Your task to perform on an android device: Open display settings Image 0: 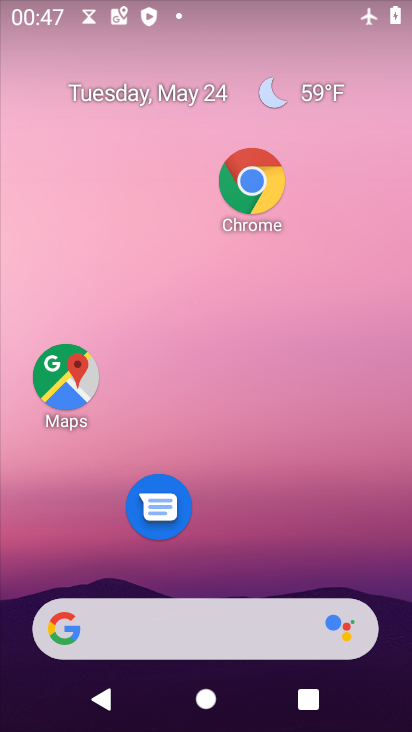
Step 0: drag from (305, 545) to (343, 311)
Your task to perform on an android device: Open display settings Image 1: 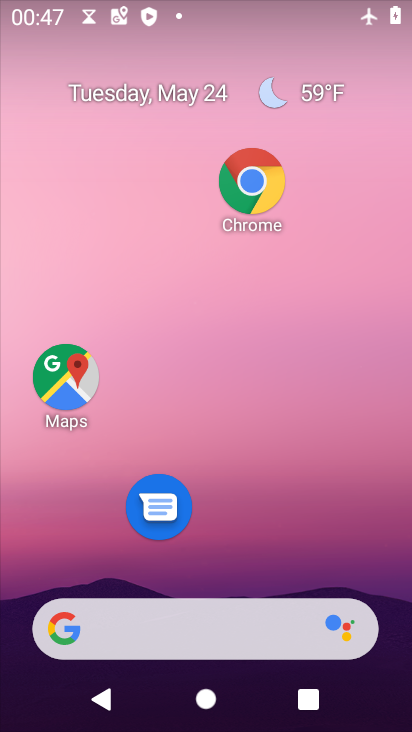
Step 1: drag from (236, 544) to (296, 246)
Your task to perform on an android device: Open display settings Image 2: 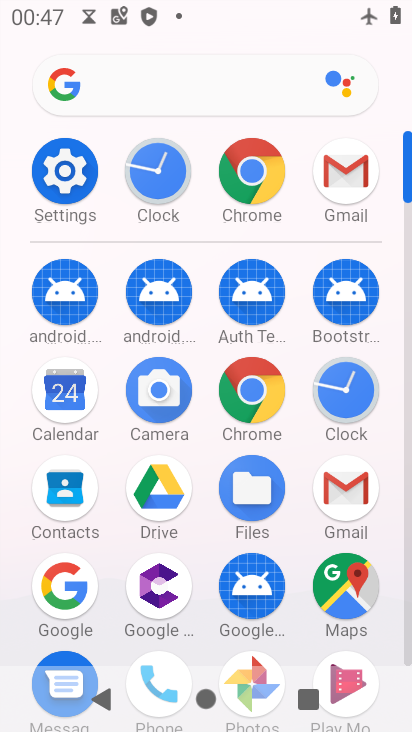
Step 2: click (351, 387)
Your task to perform on an android device: Open display settings Image 3: 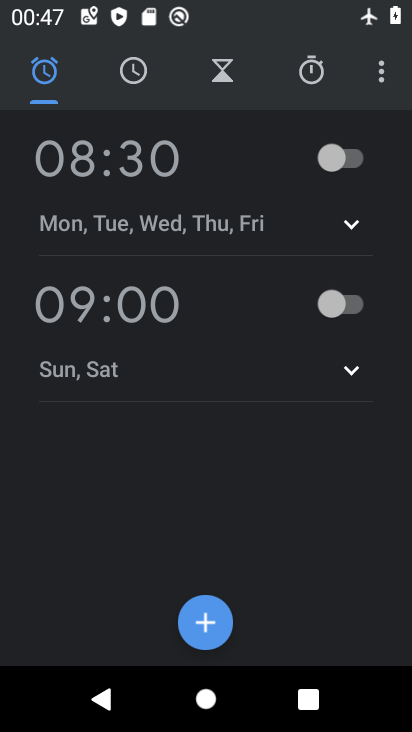
Step 3: click (375, 62)
Your task to perform on an android device: Open display settings Image 4: 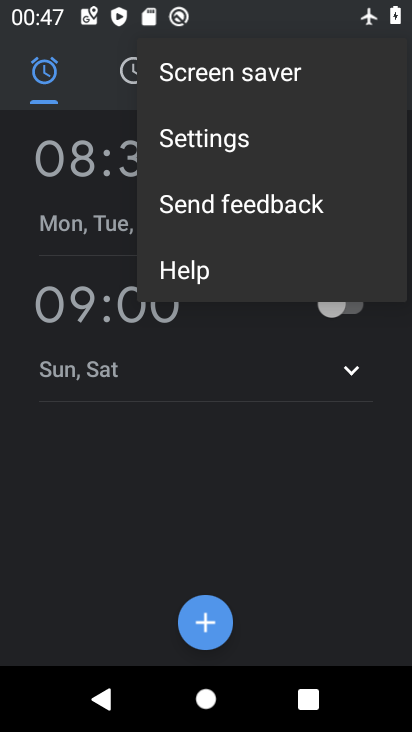
Step 4: click (237, 124)
Your task to perform on an android device: Open display settings Image 5: 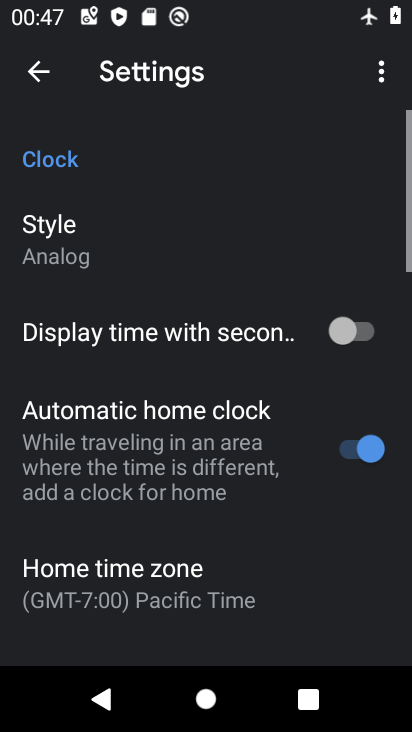
Step 5: click (33, 222)
Your task to perform on an android device: Open display settings Image 6: 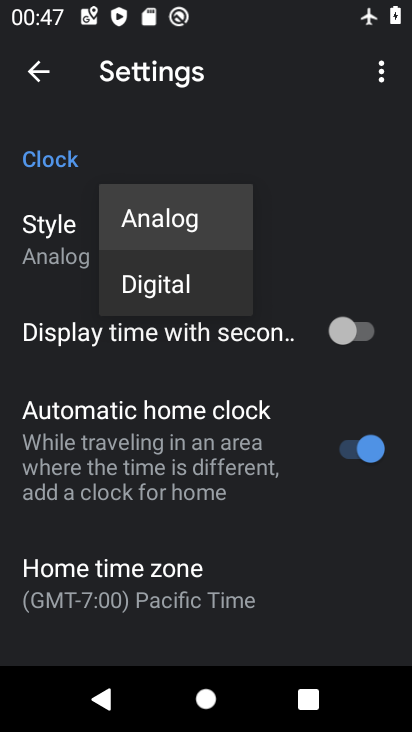
Step 6: click (152, 287)
Your task to perform on an android device: Open display settings Image 7: 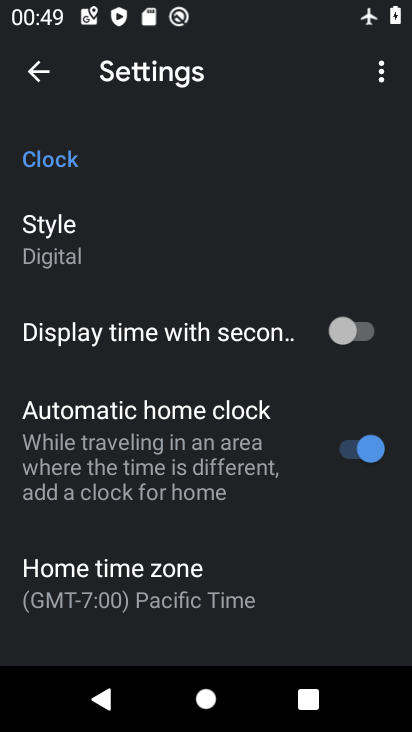
Step 7: press home button
Your task to perform on an android device: Open display settings Image 8: 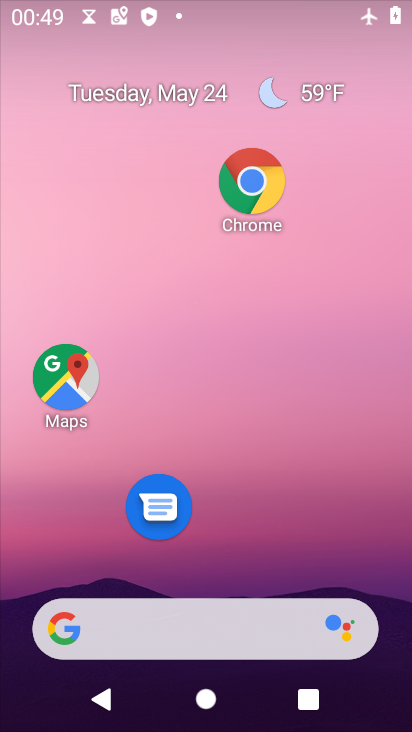
Step 8: drag from (265, 579) to (270, 251)
Your task to perform on an android device: Open display settings Image 9: 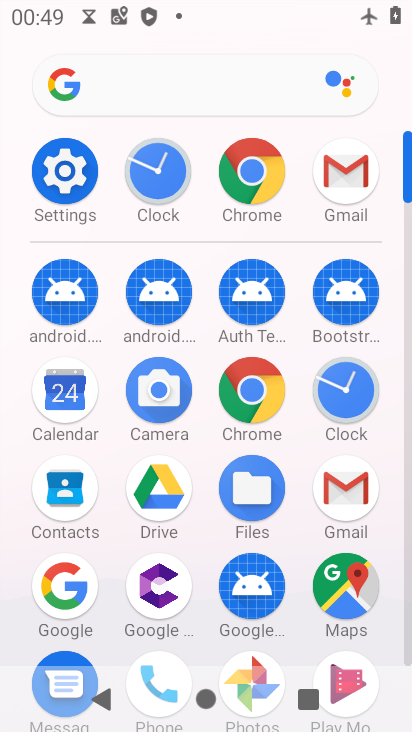
Step 9: click (58, 154)
Your task to perform on an android device: Open display settings Image 10: 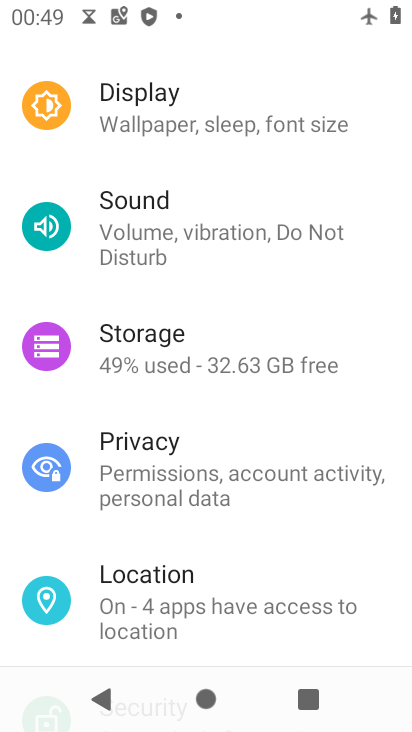
Step 10: click (171, 123)
Your task to perform on an android device: Open display settings Image 11: 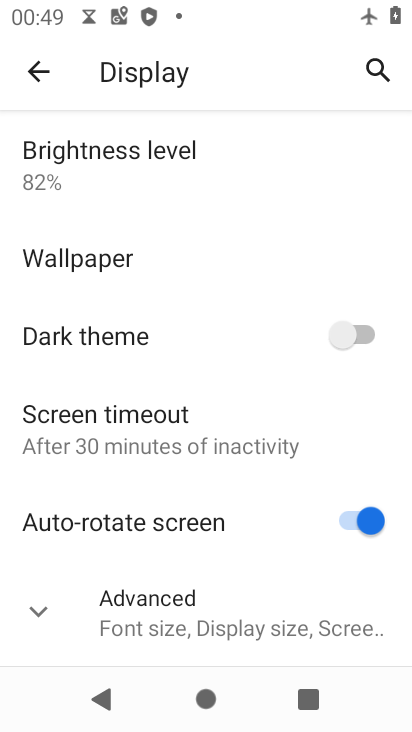
Step 11: task complete